Your task to perform on an android device: Clear all items from cart on walmart.com. Image 0: 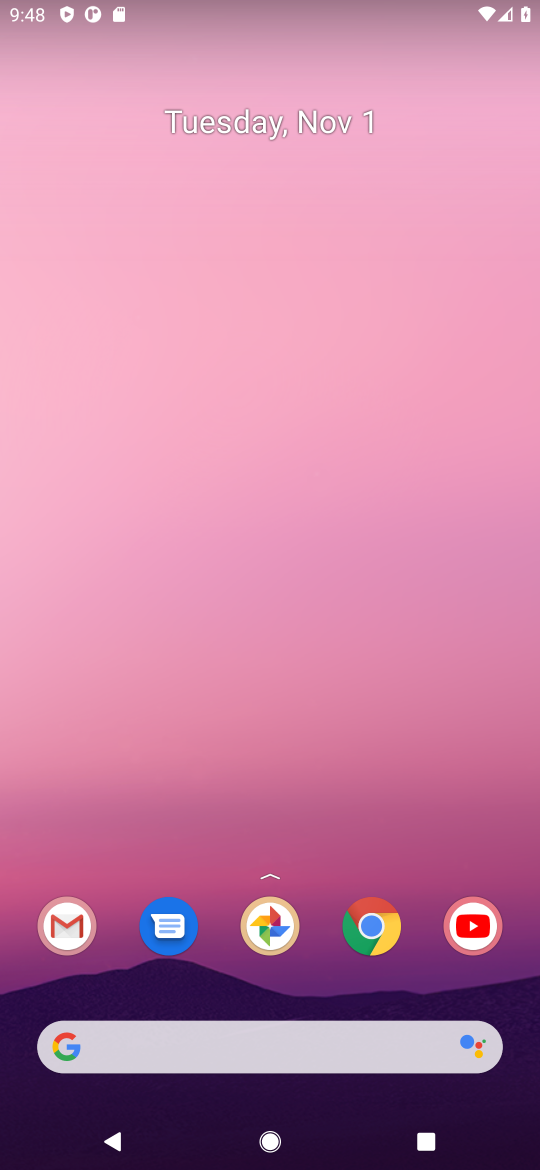
Step 0: click (363, 920)
Your task to perform on an android device: Clear all items from cart on walmart.com. Image 1: 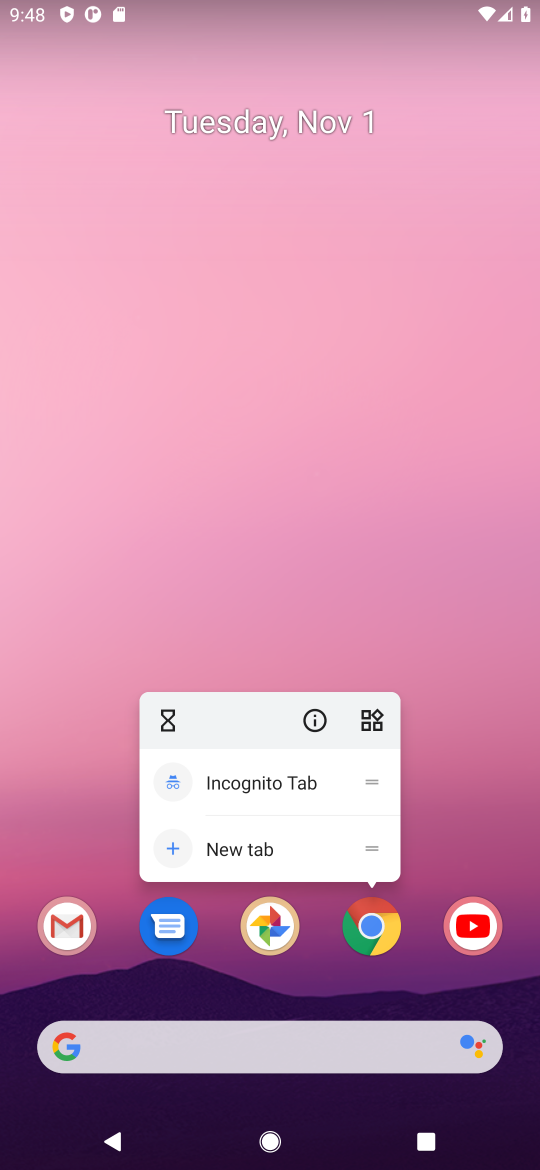
Step 1: click (378, 946)
Your task to perform on an android device: Clear all items from cart on walmart.com. Image 2: 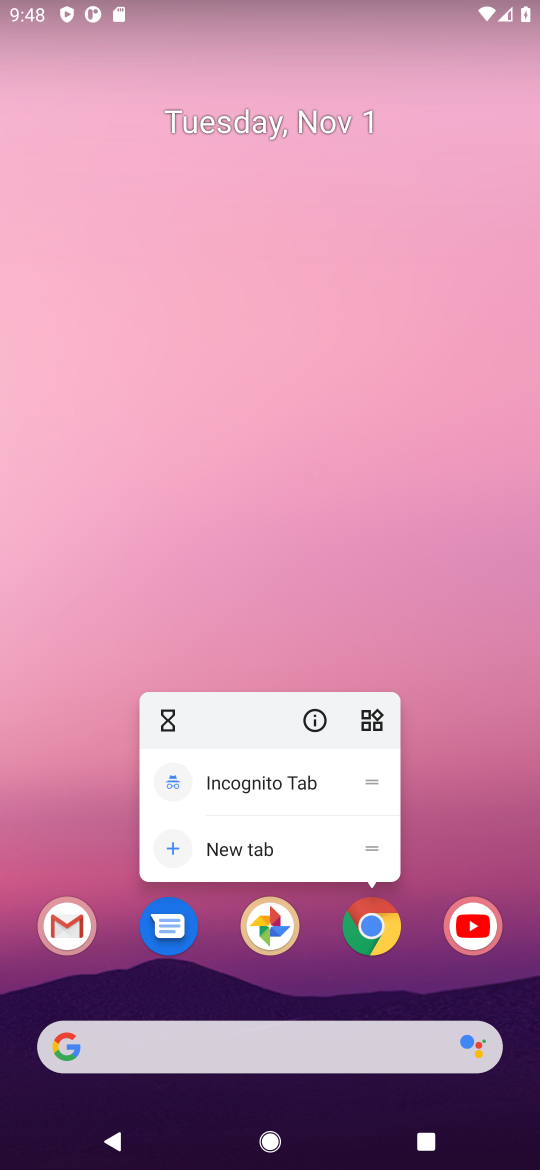
Step 2: click (377, 949)
Your task to perform on an android device: Clear all items from cart on walmart.com. Image 3: 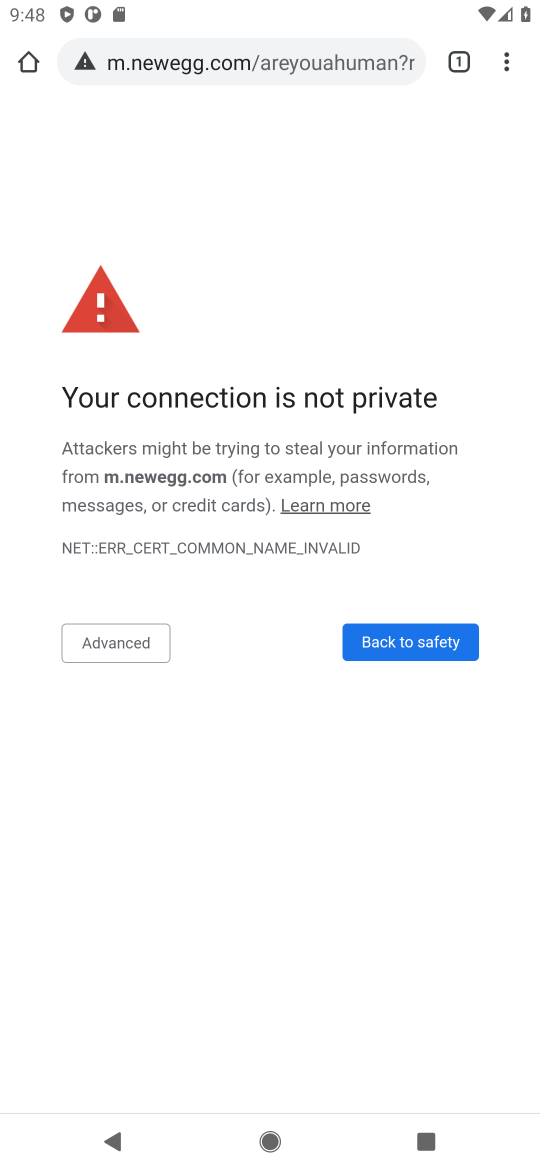
Step 3: click (157, 67)
Your task to perform on an android device: Clear all items from cart on walmart.com. Image 4: 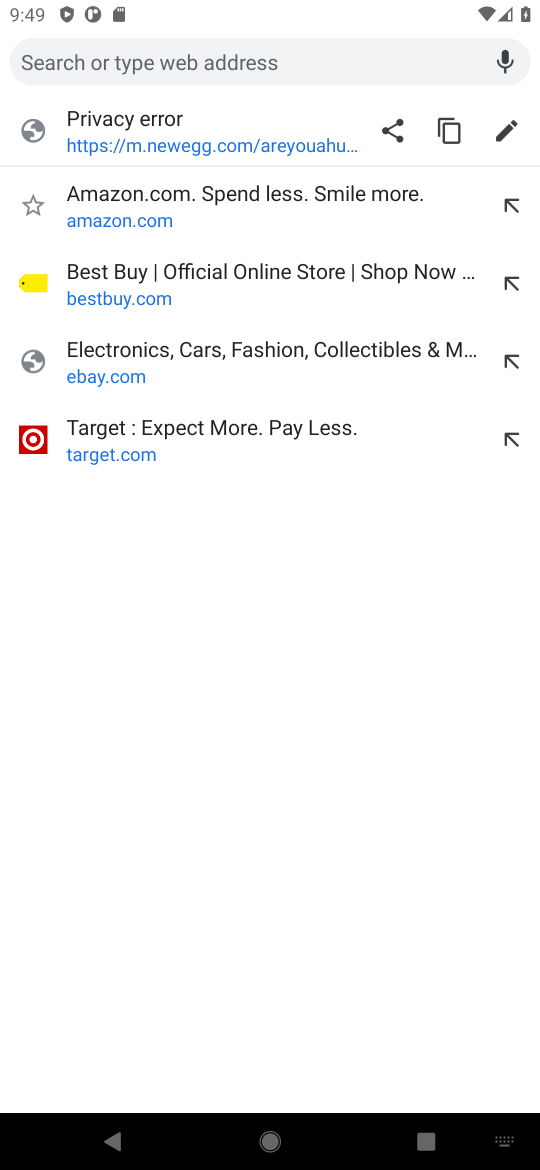
Step 4: type "walmart.com"
Your task to perform on an android device: Clear all items from cart on walmart.com. Image 5: 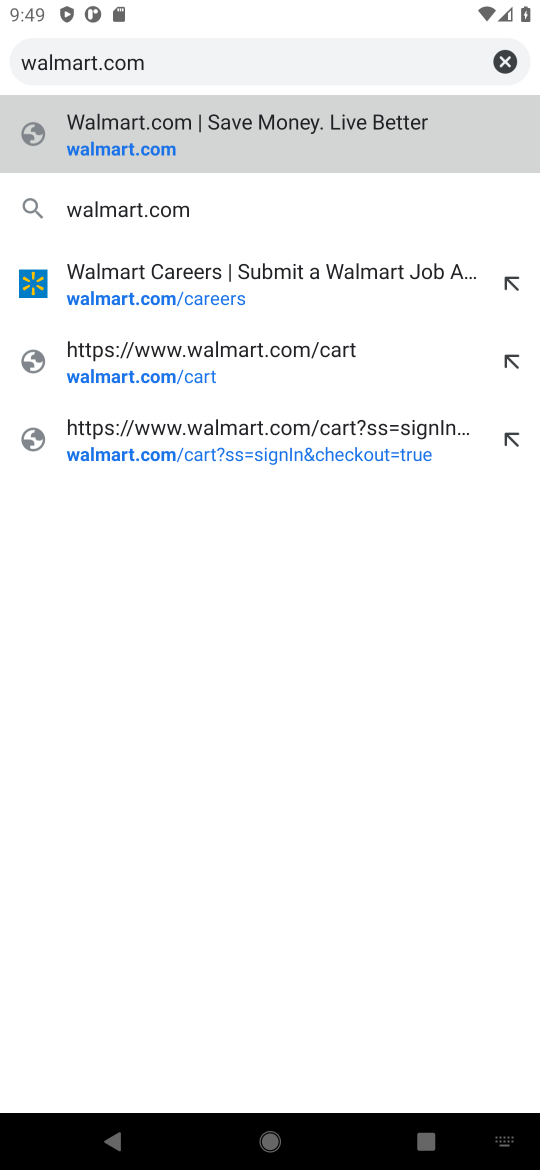
Step 5: type ""
Your task to perform on an android device: Clear all items from cart on walmart.com. Image 6: 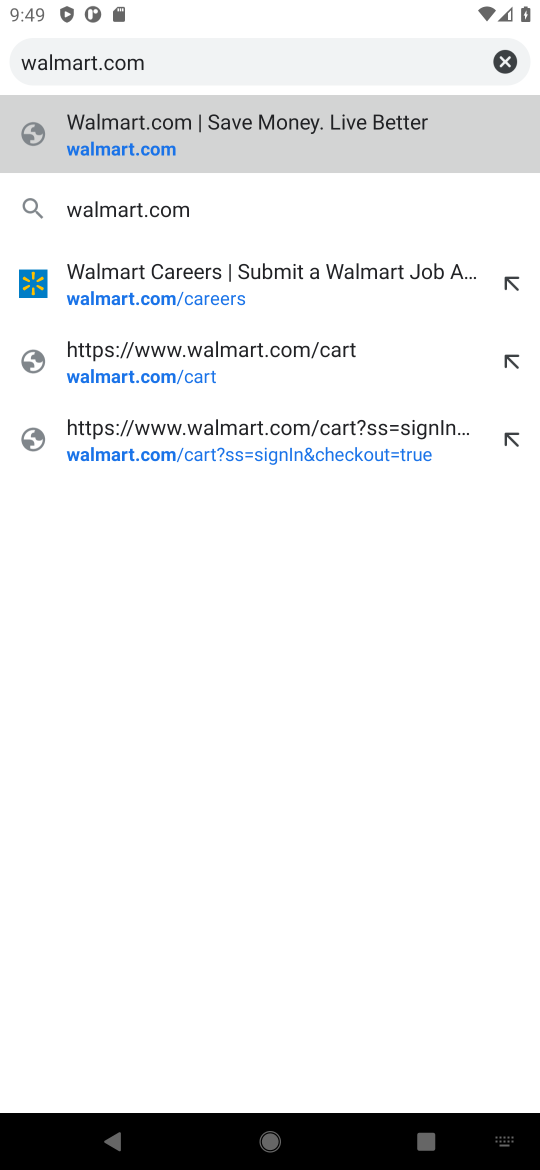
Step 6: click (120, 290)
Your task to perform on an android device: Clear all items from cart on walmart.com. Image 7: 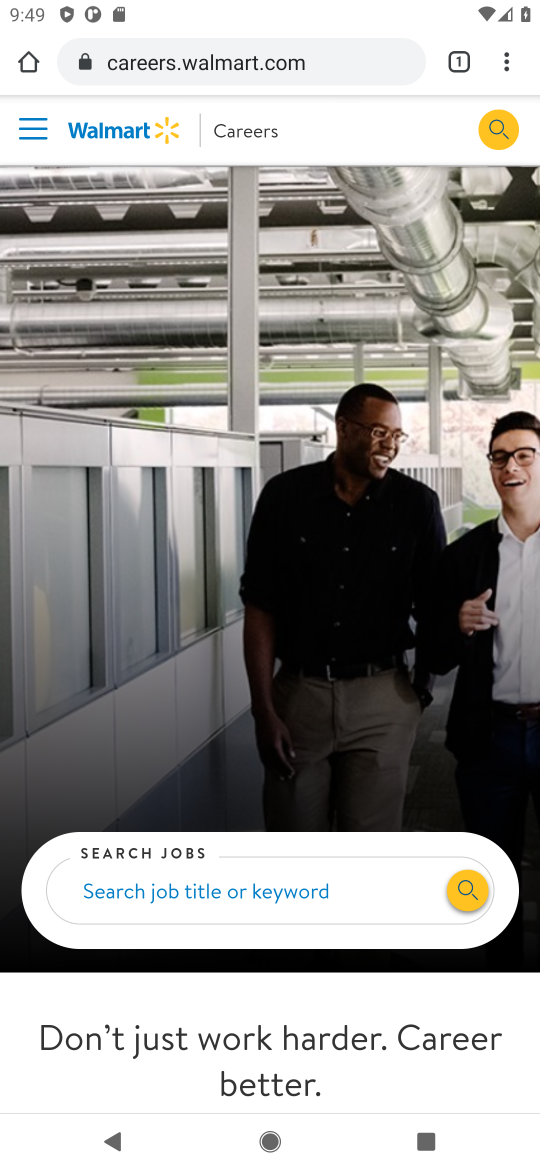
Step 7: task complete